Your task to perform on an android device: move a message to another label in the gmail app Image 0: 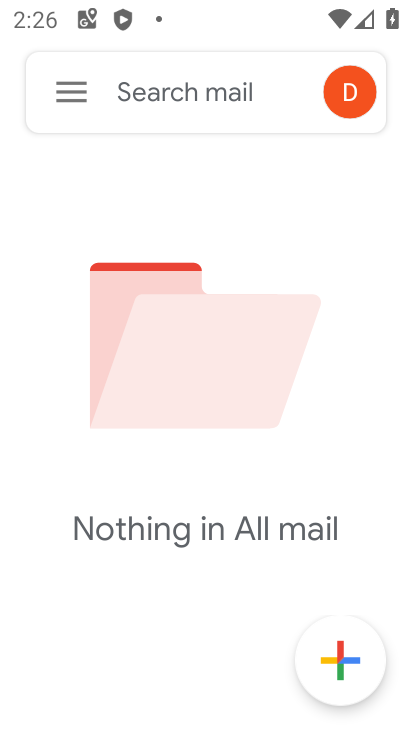
Step 0: click (75, 78)
Your task to perform on an android device: move a message to another label in the gmail app Image 1: 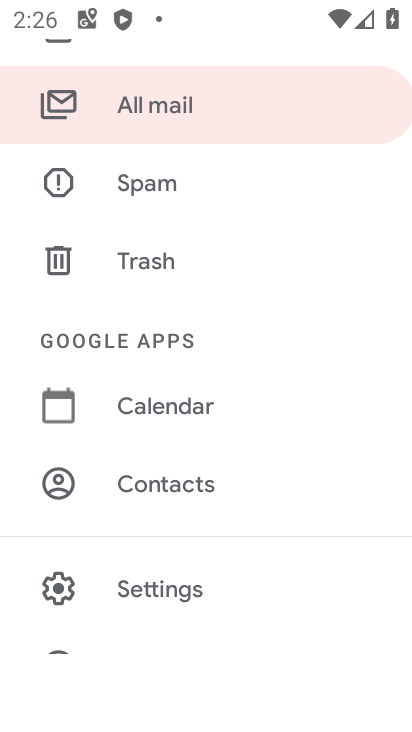
Step 1: click (208, 92)
Your task to perform on an android device: move a message to another label in the gmail app Image 2: 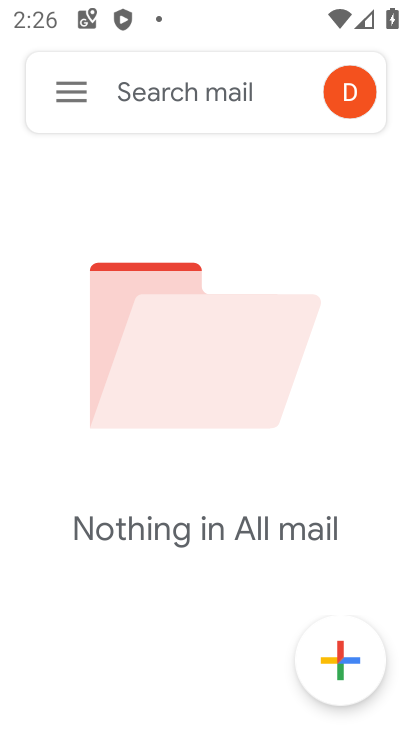
Step 2: task complete